Your task to perform on an android device: change text size in settings app Image 0: 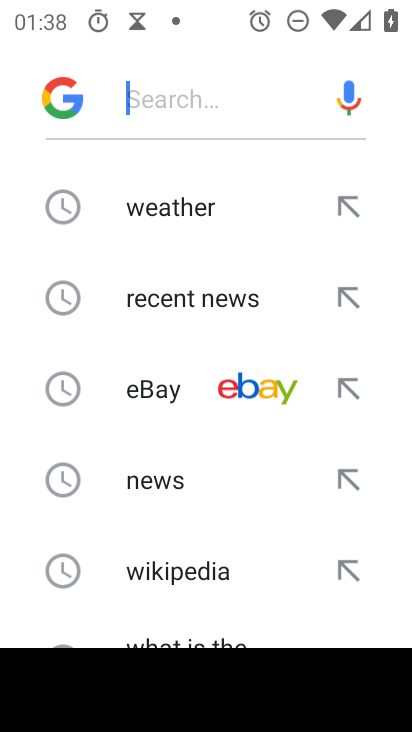
Step 0: press home button
Your task to perform on an android device: change text size in settings app Image 1: 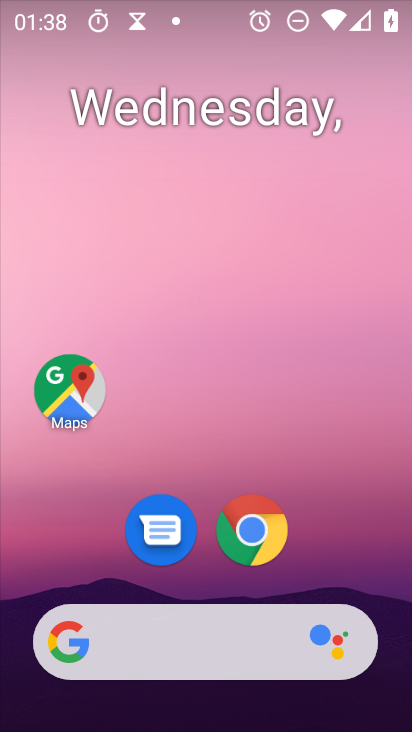
Step 1: drag from (319, 587) to (300, 38)
Your task to perform on an android device: change text size in settings app Image 2: 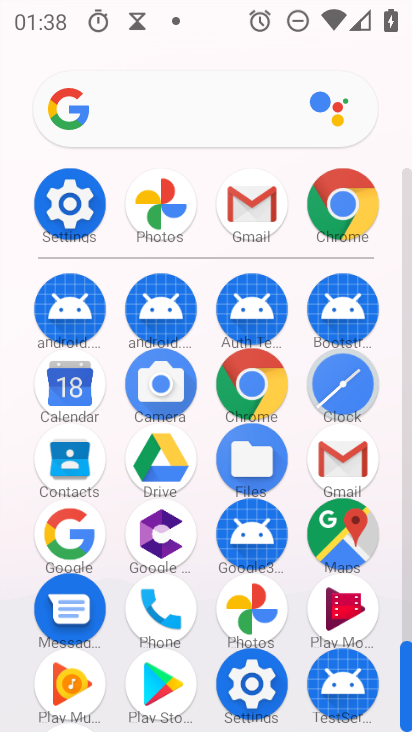
Step 2: click (54, 204)
Your task to perform on an android device: change text size in settings app Image 3: 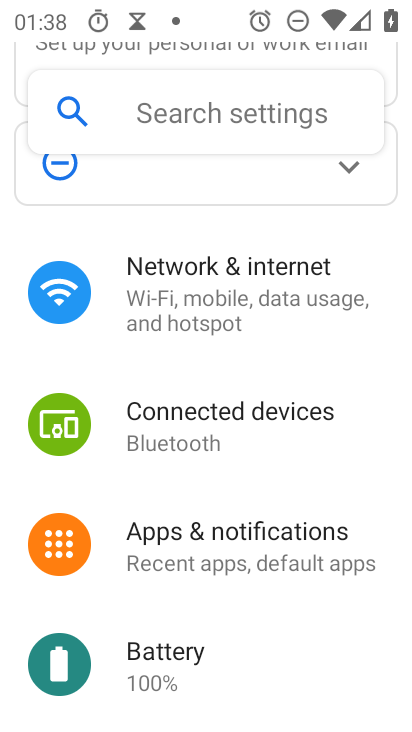
Step 3: drag from (213, 663) to (314, 0)
Your task to perform on an android device: change text size in settings app Image 4: 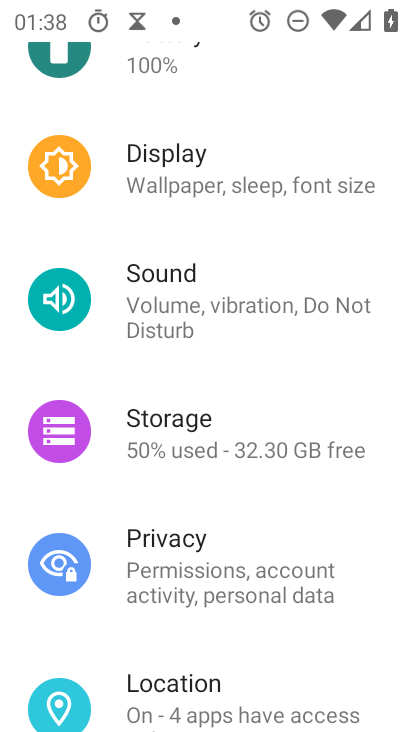
Step 4: drag from (244, 646) to (245, 70)
Your task to perform on an android device: change text size in settings app Image 5: 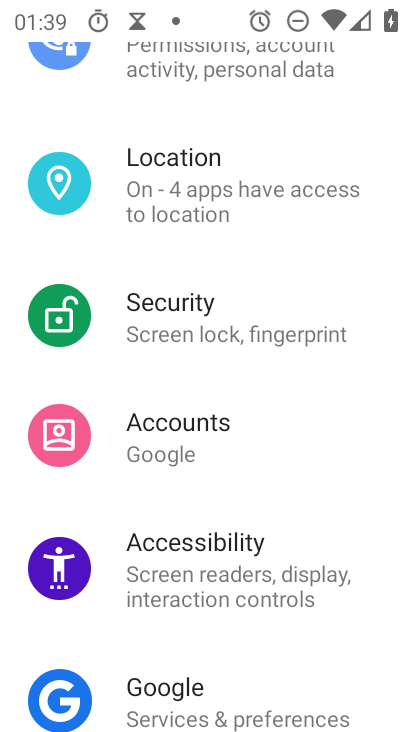
Step 5: drag from (218, 684) to (219, 158)
Your task to perform on an android device: change text size in settings app Image 6: 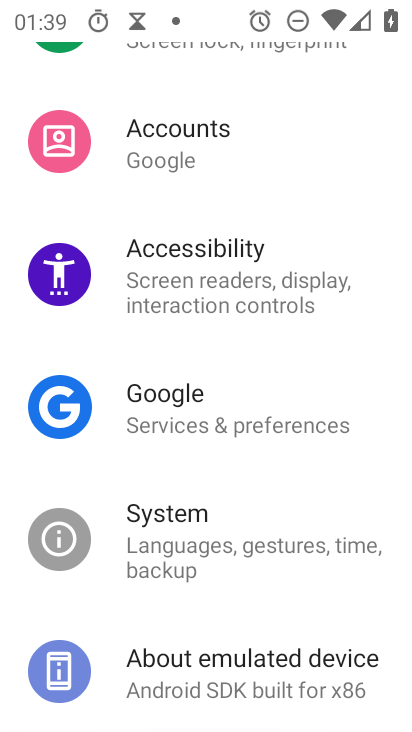
Step 6: drag from (294, 240) to (337, 685)
Your task to perform on an android device: change text size in settings app Image 7: 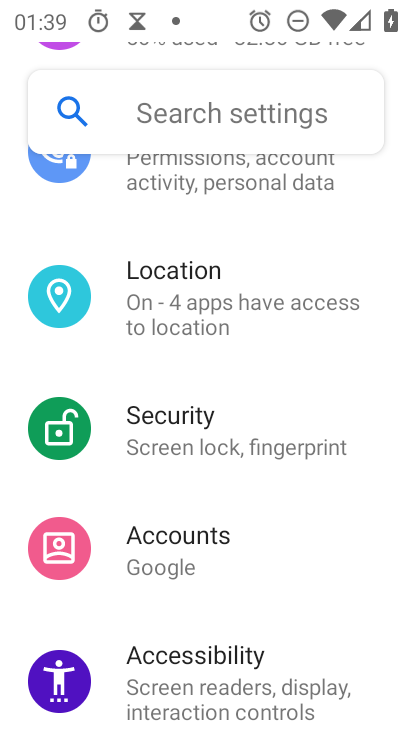
Step 7: drag from (288, 275) to (307, 669)
Your task to perform on an android device: change text size in settings app Image 8: 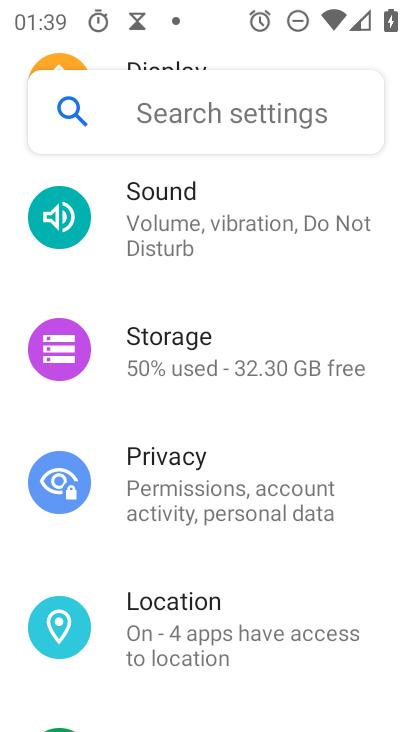
Step 8: drag from (216, 397) to (253, 694)
Your task to perform on an android device: change text size in settings app Image 9: 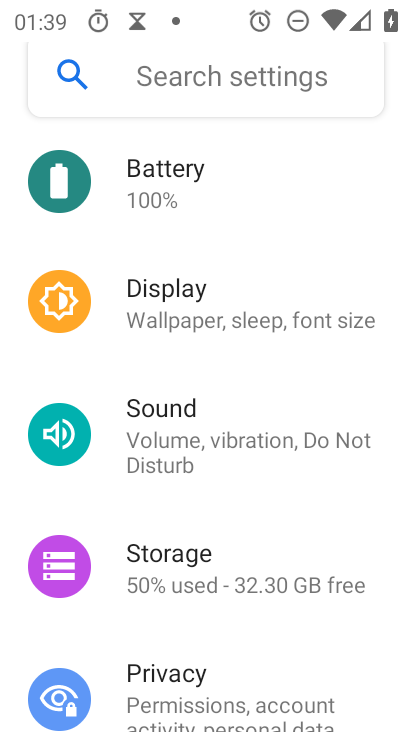
Step 9: drag from (236, 320) to (281, 677)
Your task to perform on an android device: change text size in settings app Image 10: 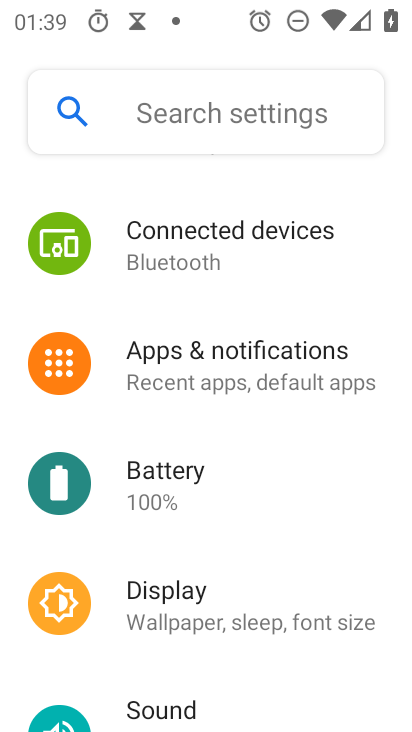
Step 10: drag from (214, 286) to (276, 686)
Your task to perform on an android device: change text size in settings app Image 11: 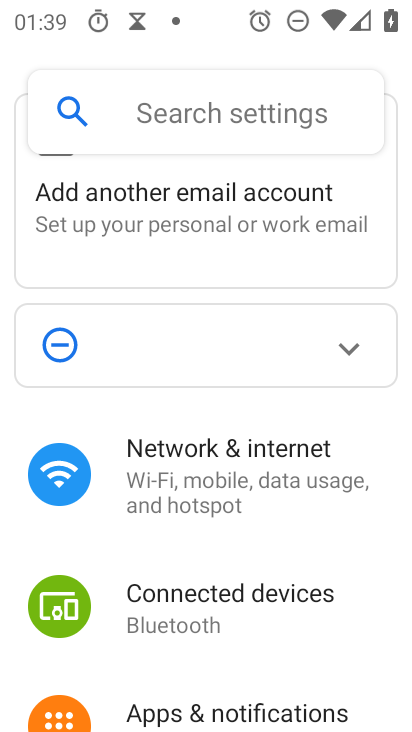
Step 11: drag from (259, 716) to (250, 119)
Your task to perform on an android device: change text size in settings app Image 12: 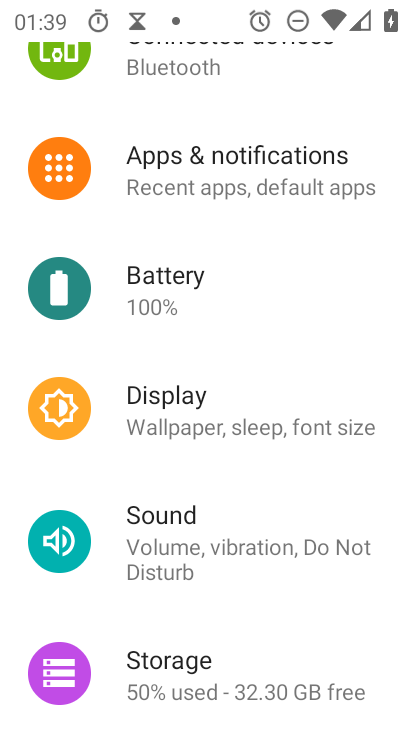
Step 12: drag from (299, 593) to (342, 282)
Your task to perform on an android device: change text size in settings app Image 13: 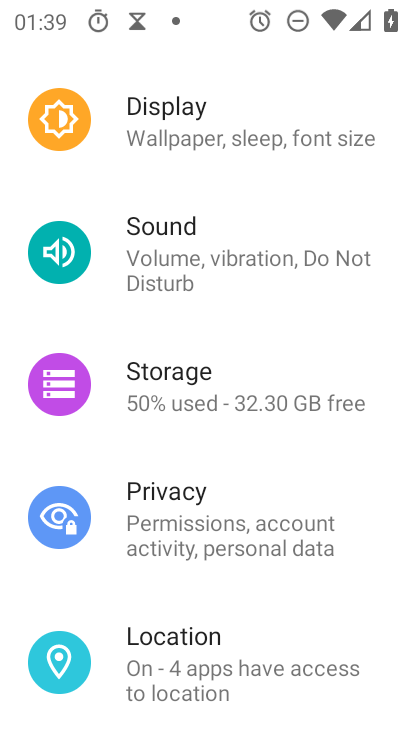
Step 13: drag from (304, 643) to (254, 64)
Your task to perform on an android device: change text size in settings app Image 14: 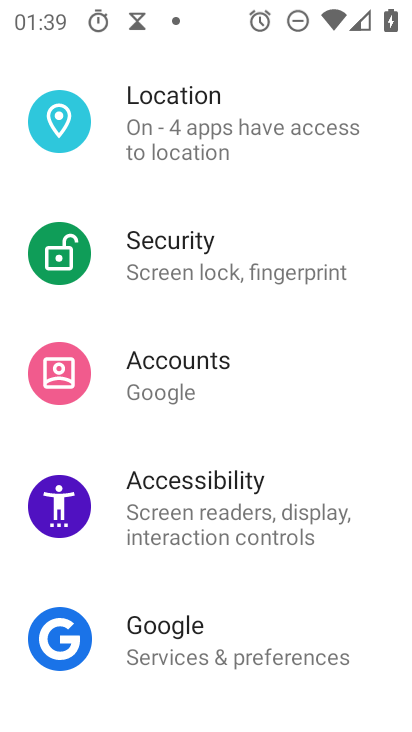
Step 14: drag from (254, 593) to (270, 281)
Your task to perform on an android device: change text size in settings app Image 15: 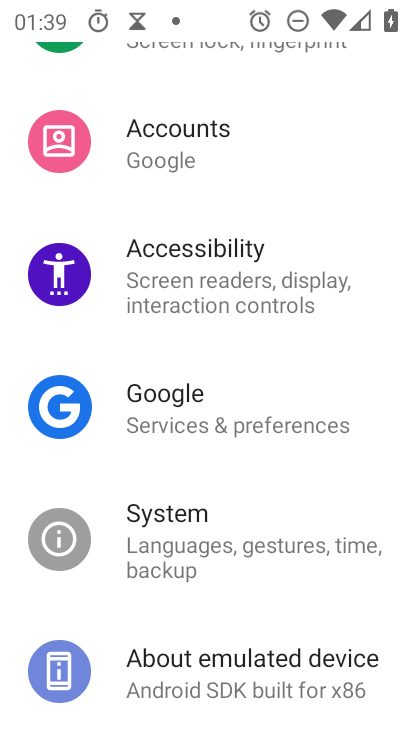
Step 15: click (233, 255)
Your task to perform on an android device: change text size in settings app Image 16: 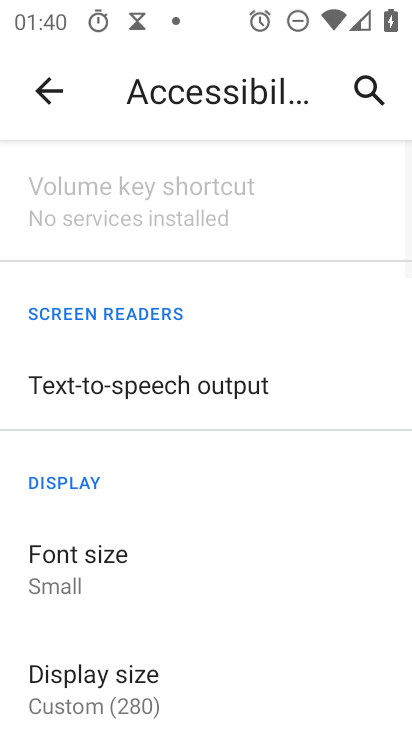
Step 16: click (92, 577)
Your task to perform on an android device: change text size in settings app Image 17: 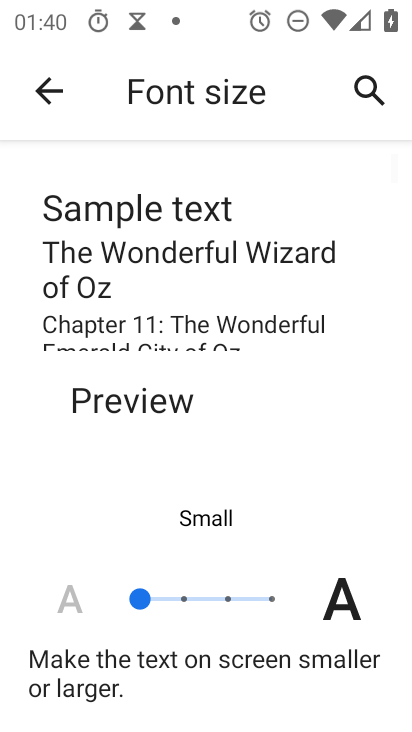
Step 17: click (189, 595)
Your task to perform on an android device: change text size in settings app Image 18: 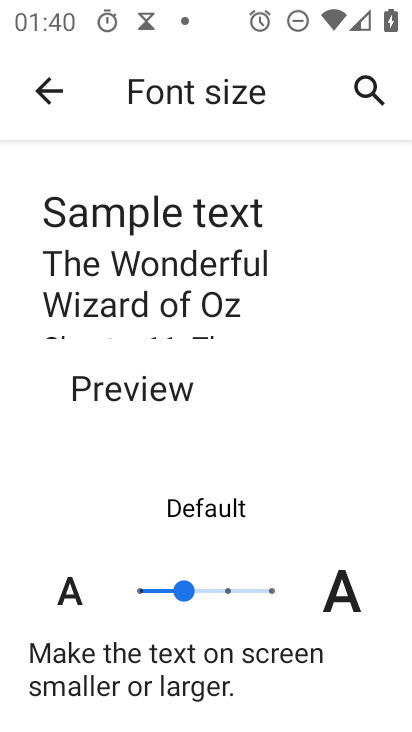
Step 18: task complete